Your task to perform on an android device: When is my next meeting? Image 0: 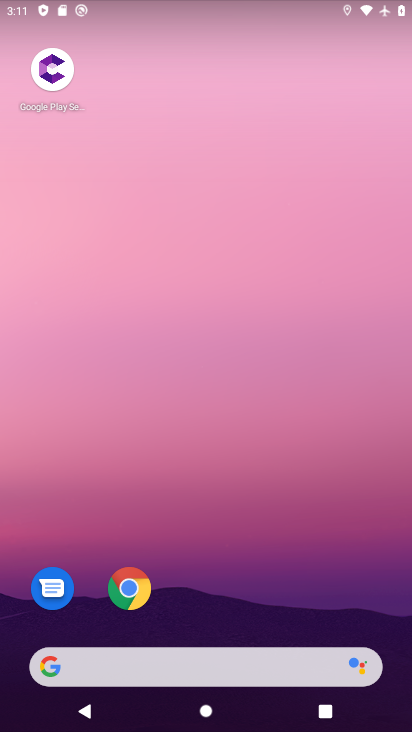
Step 0: press home button
Your task to perform on an android device: When is my next meeting? Image 1: 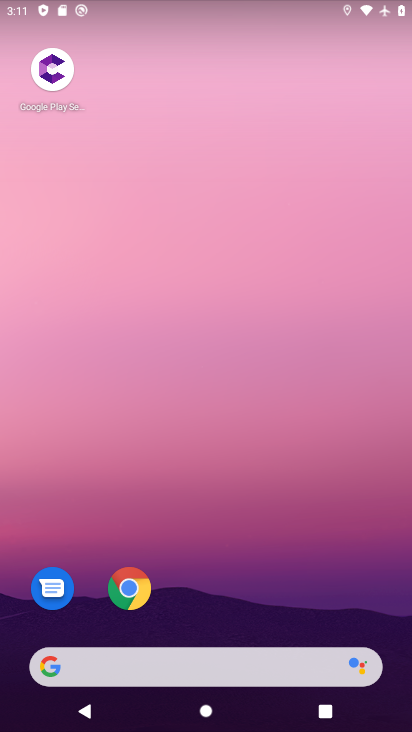
Step 1: click (226, 95)
Your task to perform on an android device: When is my next meeting? Image 2: 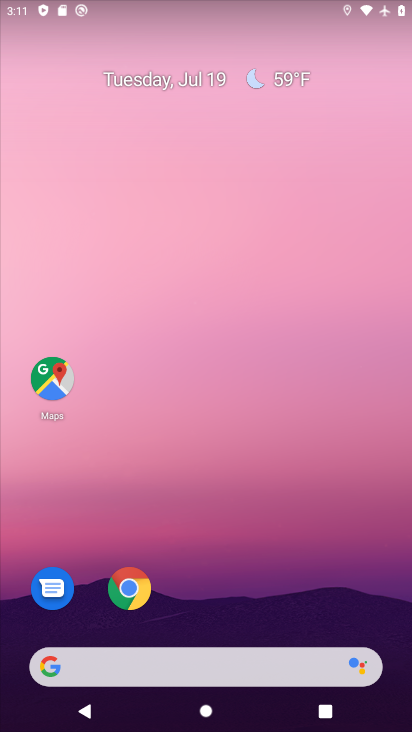
Step 2: drag from (273, 597) to (206, 38)
Your task to perform on an android device: When is my next meeting? Image 3: 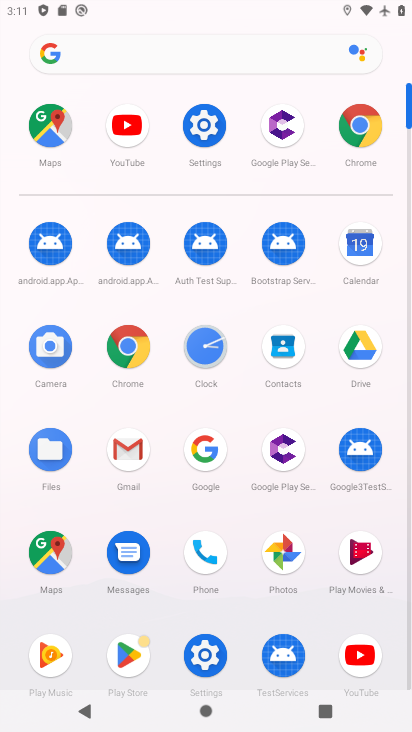
Step 3: click (363, 245)
Your task to perform on an android device: When is my next meeting? Image 4: 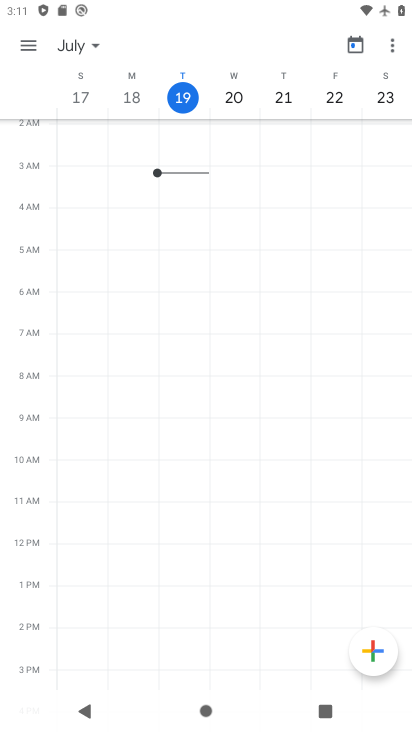
Step 4: click (32, 43)
Your task to perform on an android device: When is my next meeting? Image 5: 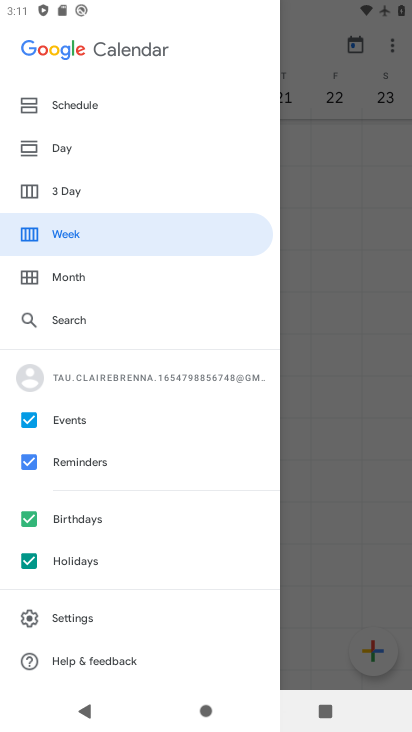
Step 5: click (79, 101)
Your task to perform on an android device: When is my next meeting? Image 6: 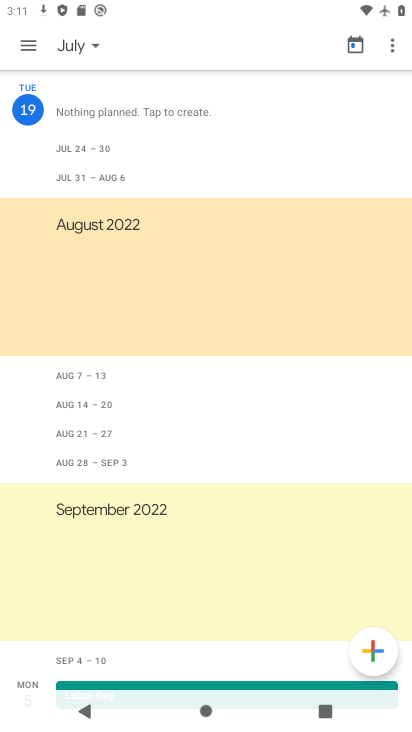
Step 6: task complete